Your task to perform on an android device: change the clock display to show seconds Image 0: 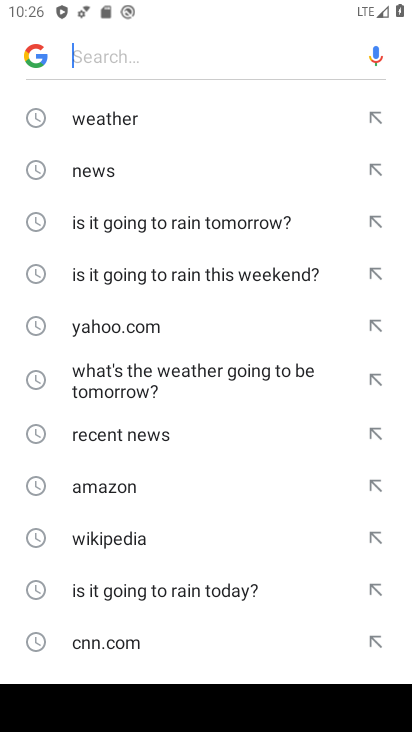
Step 0: press home button
Your task to perform on an android device: change the clock display to show seconds Image 1: 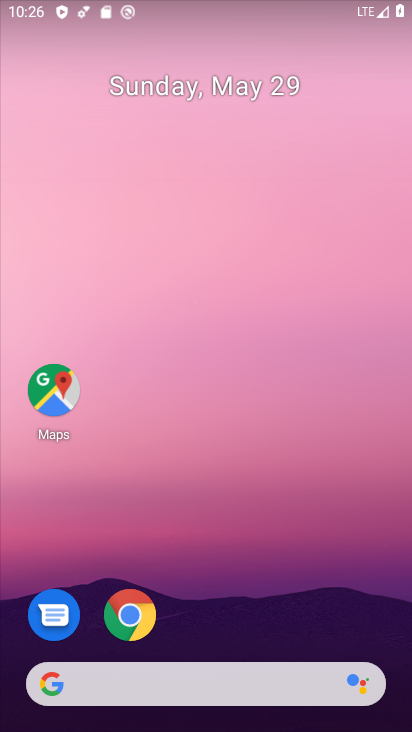
Step 1: drag from (379, 636) to (392, 247)
Your task to perform on an android device: change the clock display to show seconds Image 2: 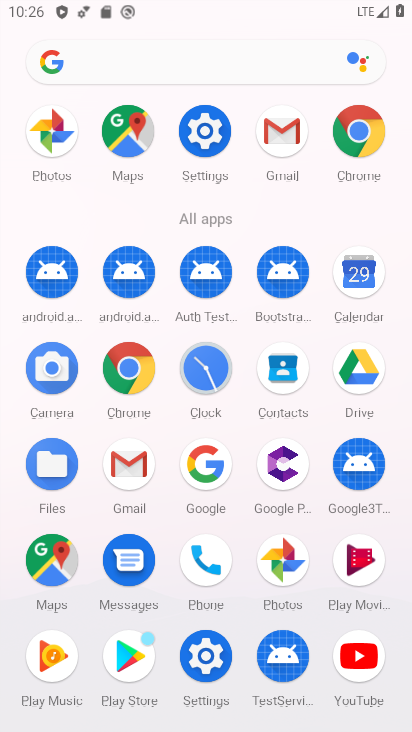
Step 2: click (204, 377)
Your task to perform on an android device: change the clock display to show seconds Image 3: 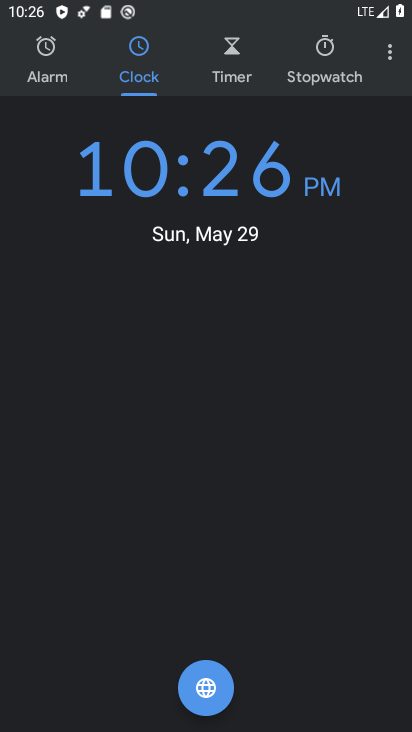
Step 3: click (391, 62)
Your task to perform on an android device: change the clock display to show seconds Image 4: 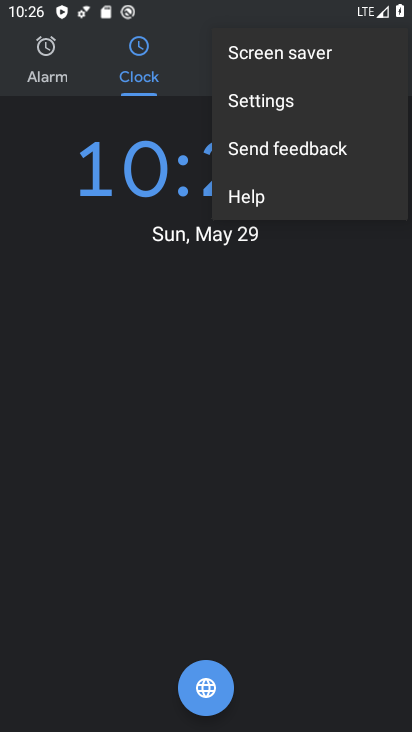
Step 4: click (330, 111)
Your task to perform on an android device: change the clock display to show seconds Image 5: 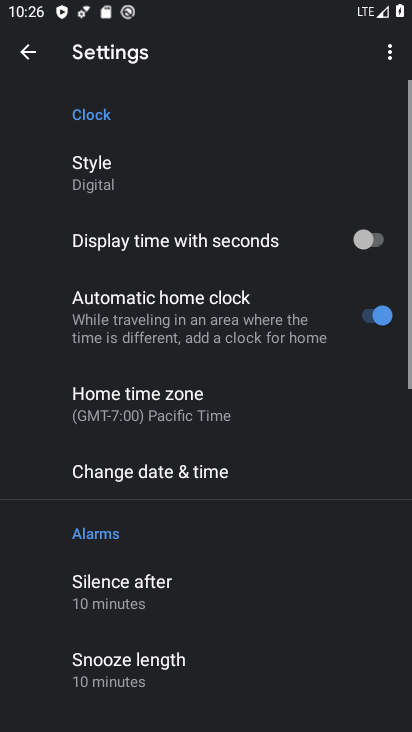
Step 5: drag from (325, 530) to (334, 450)
Your task to perform on an android device: change the clock display to show seconds Image 6: 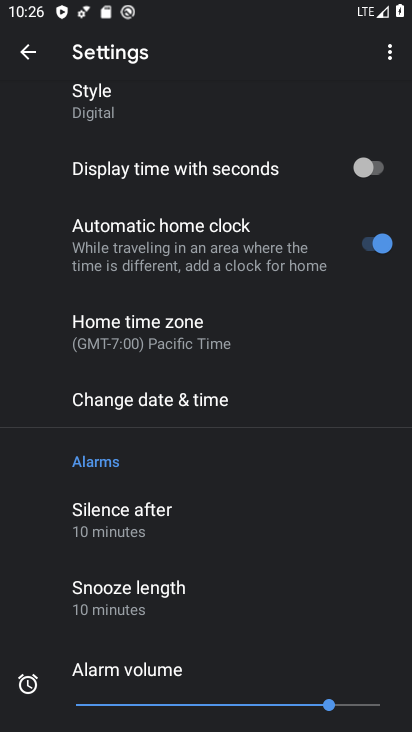
Step 6: drag from (325, 543) to (335, 479)
Your task to perform on an android device: change the clock display to show seconds Image 7: 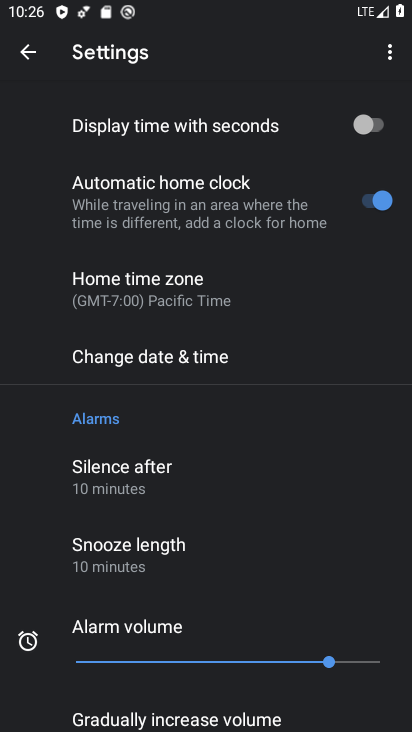
Step 7: drag from (334, 548) to (337, 489)
Your task to perform on an android device: change the clock display to show seconds Image 8: 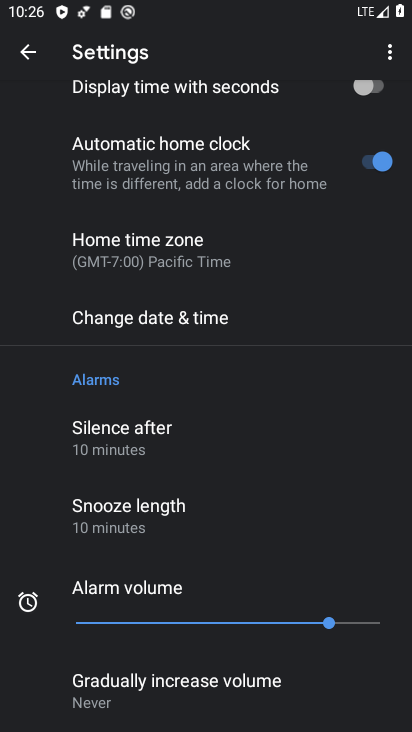
Step 8: drag from (341, 563) to (343, 497)
Your task to perform on an android device: change the clock display to show seconds Image 9: 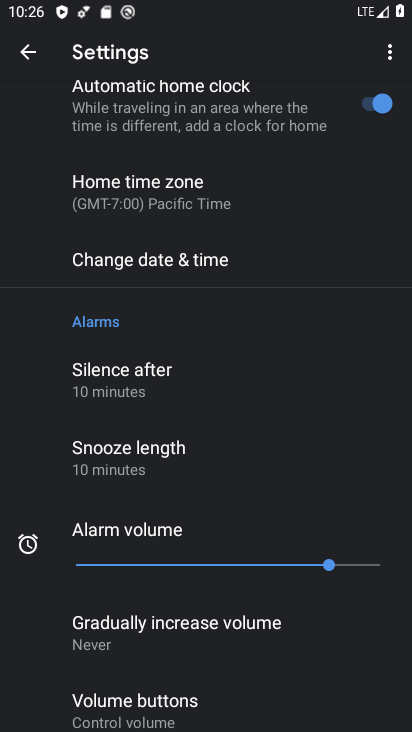
Step 9: drag from (352, 590) to (353, 511)
Your task to perform on an android device: change the clock display to show seconds Image 10: 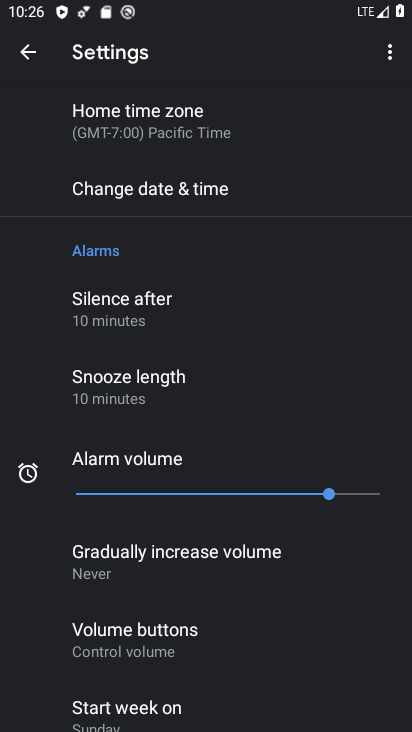
Step 10: drag from (333, 632) to (338, 526)
Your task to perform on an android device: change the clock display to show seconds Image 11: 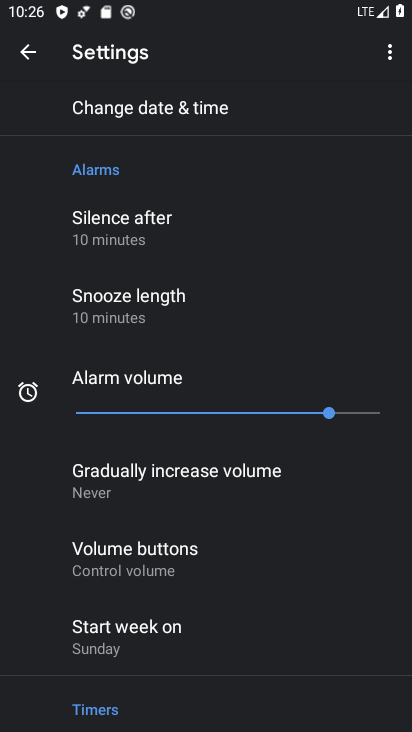
Step 11: drag from (333, 595) to (344, 491)
Your task to perform on an android device: change the clock display to show seconds Image 12: 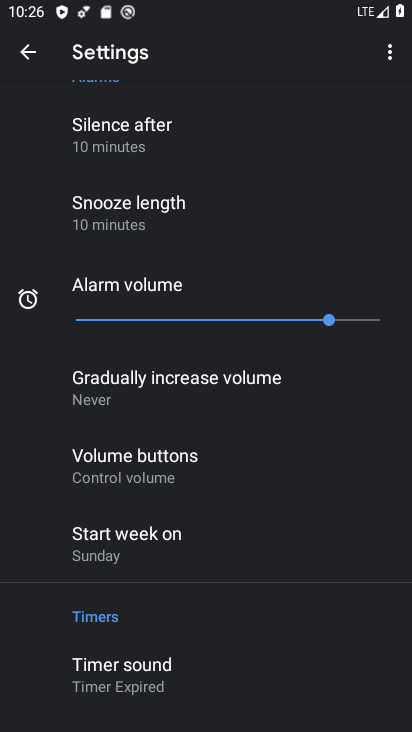
Step 12: drag from (320, 632) to (335, 543)
Your task to perform on an android device: change the clock display to show seconds Image 13: 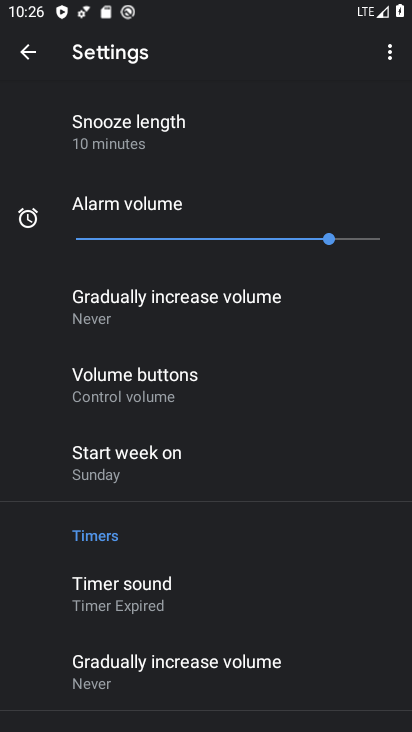
Step 13: drag from (342, 650) to (353, 553)
Your task to perform on an android device: change the clock display to show seconds Image 14: 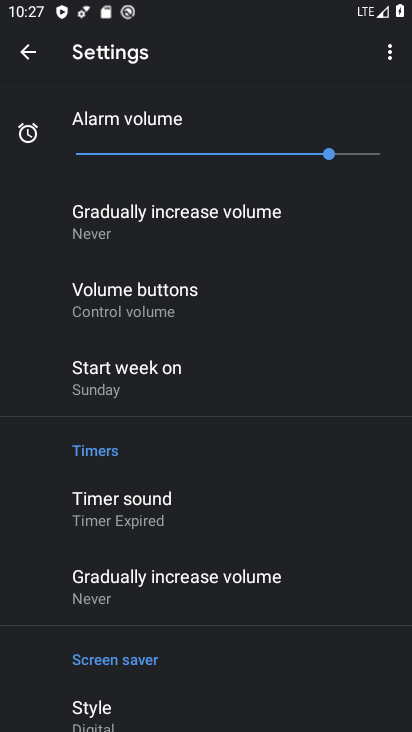
Step 14: drag from (352, 654) to (352, 506)
Your task to perform on an android device: change the clock display to show seconds Image 15: 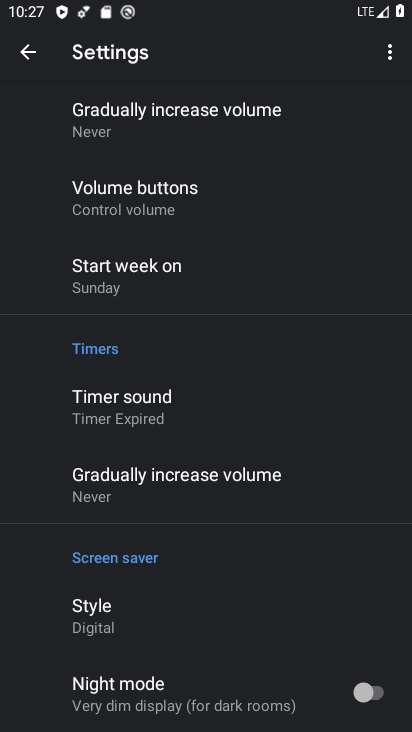
Step 15: drag from (345, 363) to (342, 459)
Your task to perform on an android device: change the clock display to show seconds Image 16: 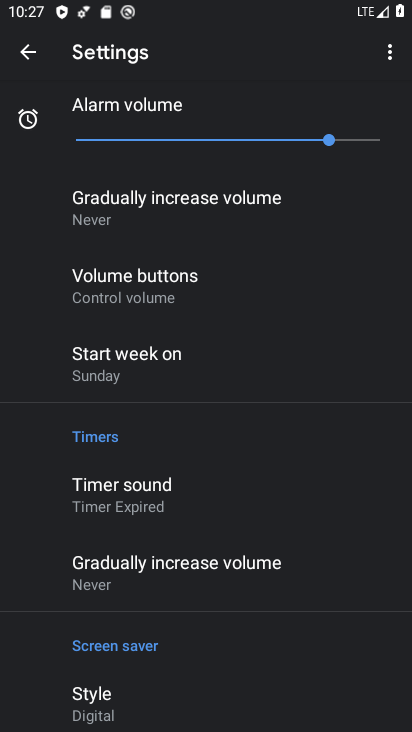
Step 16: drag from (354, 355) to (360, 453)
Your task to perform on an android device: change the clock display to show seconds Image 17: 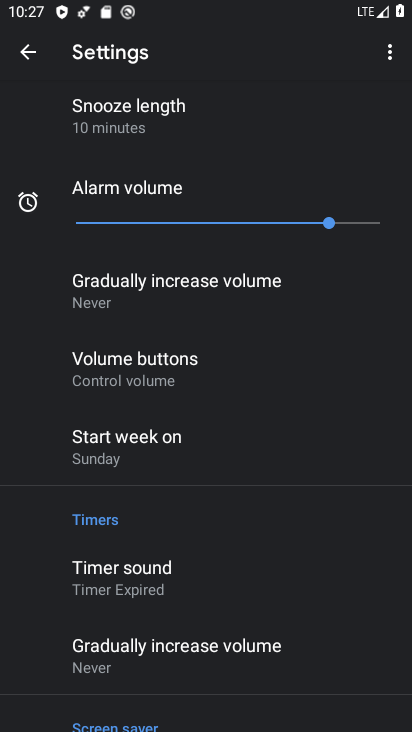
Step 17: drag from (365, 371) to (365, 462)
Your task to perform on an android device: change the clock display to show seconds Image 18: 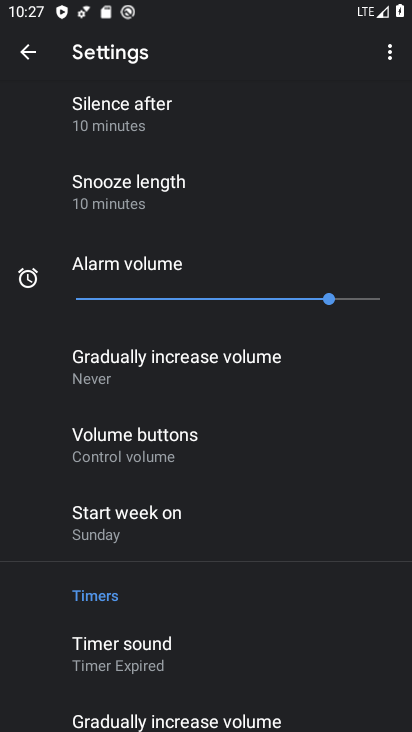
Step 18: drag from (364, 351) to (360, 437)
Your task to perform on an android device: change the clock display to show seconds Image 19: 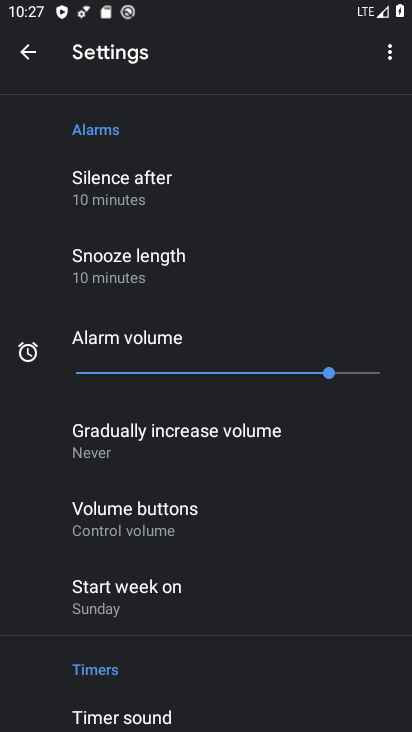
Step 19: drag from (366, 349) to (373, 440)
Your task to perform on an android device: change the clock display to show seconds Image 20: 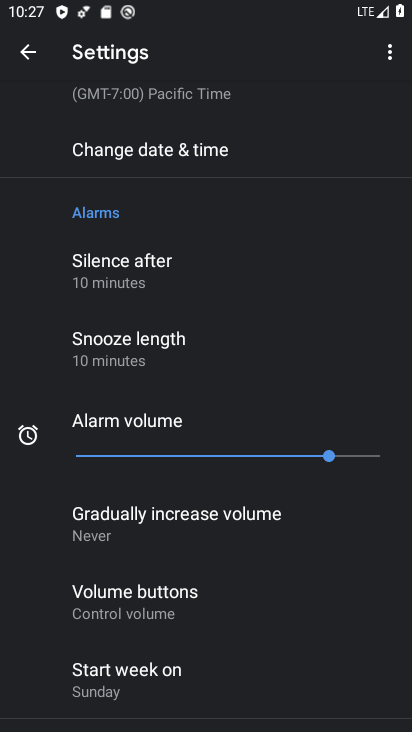
Step 20: drag from (357, 280) to (365, 378)
Your task to perform on an android device: change the clock display to show seconds Image 21: 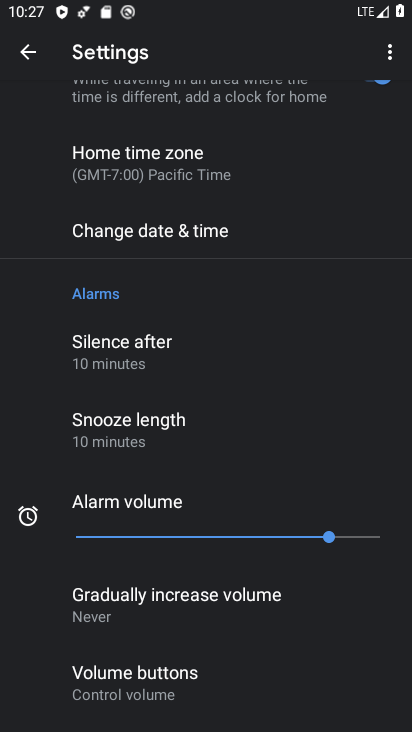
Step 21: drag from (356, 273) to (359, 386)
Your task to perform on an android device: change the clock display to show seconds Image 22: 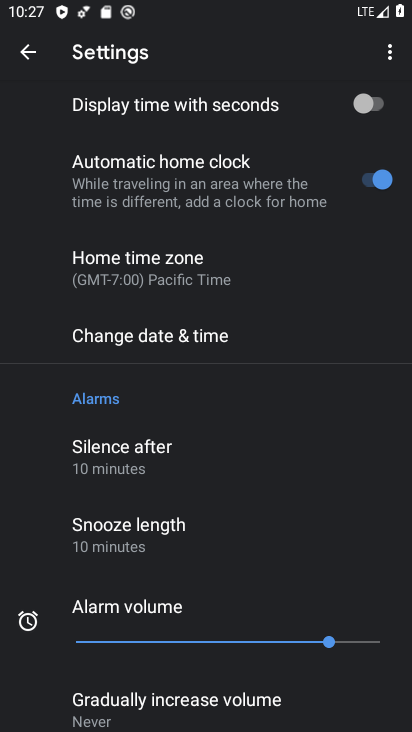
Step 22: drag from (351, 255) to (349, 402)
Your task to perform on an android device: change the clock display to show seconds Image 23: 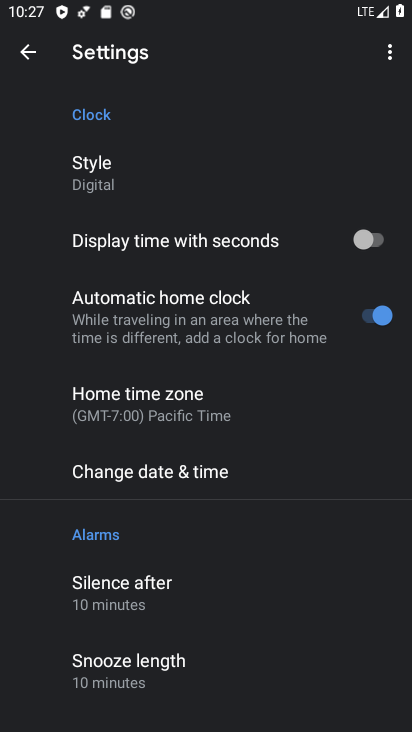
Step 23: click (361, 244)
Your task to perform on an android device: change the clock display to show seconds Image 24: 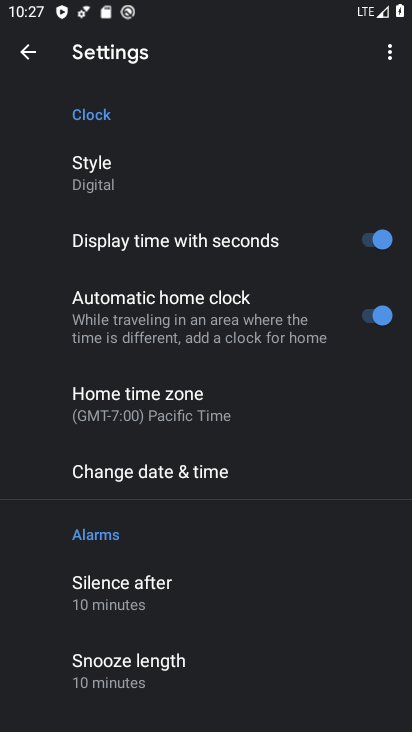
Step 24: task complete